Your task to perform on an android device: Open wifi settings Image 0: 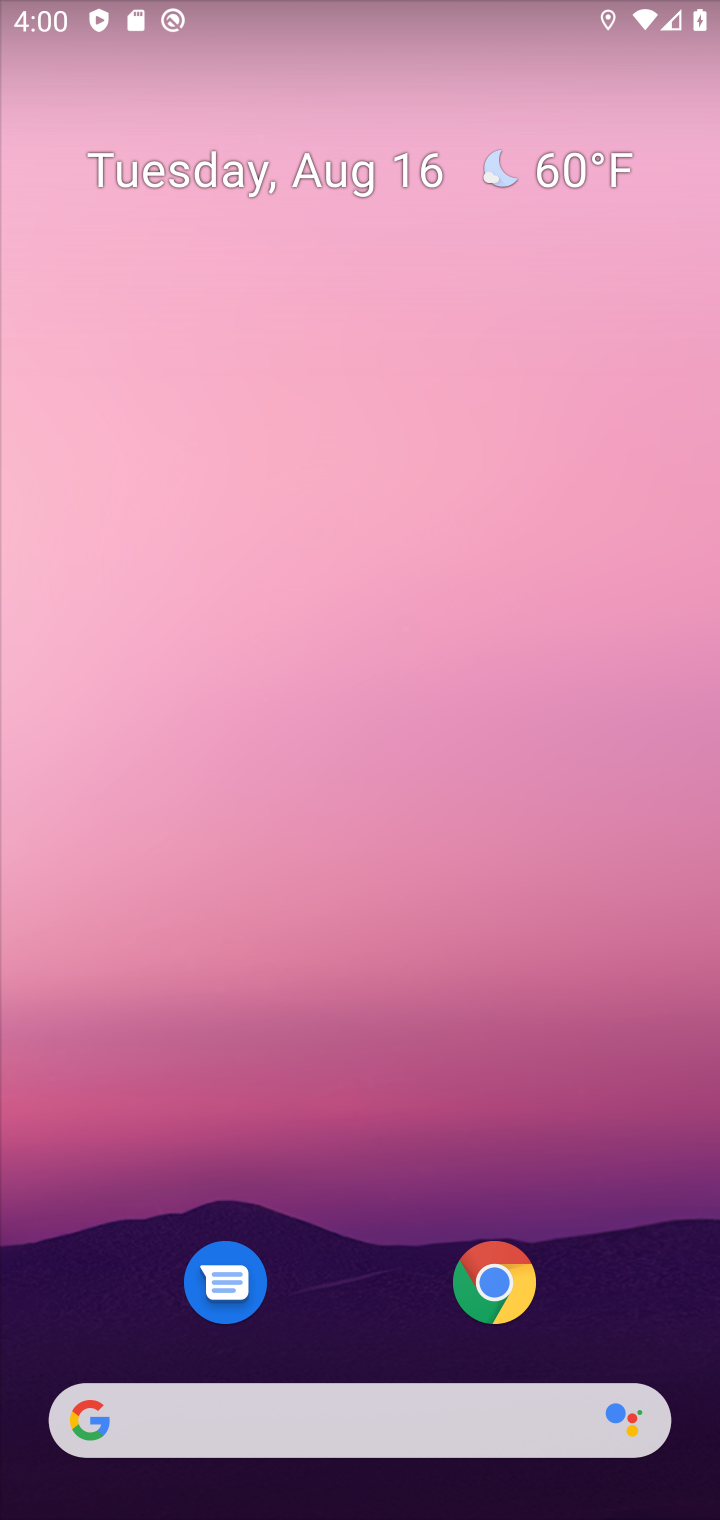
Step 0: drag from (253, 62) to (337, 956)
Your task to perform on an android device: Open wifi settings Image 1: 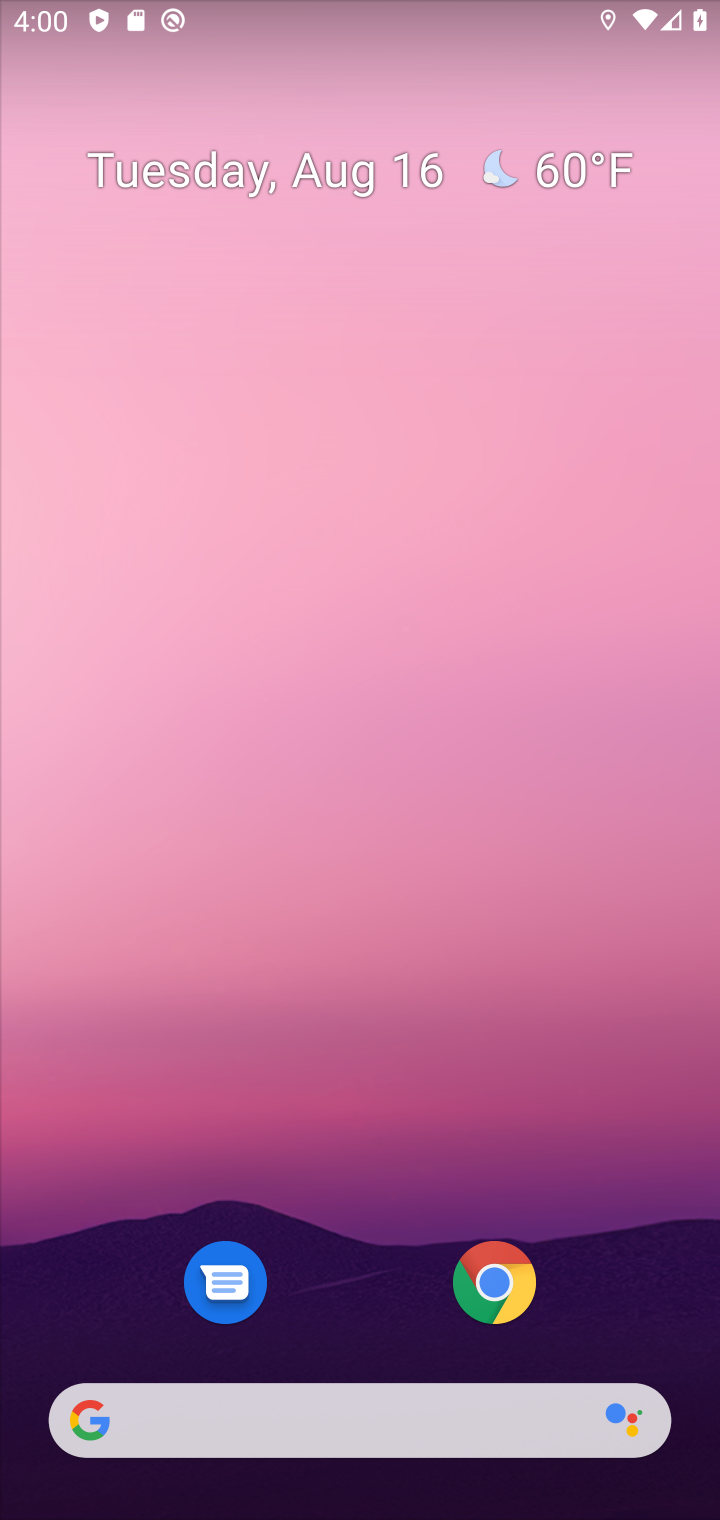
Step 1: drag from (100, 58) to (343, 871)
Your task to perform on an android device: Open wifi settings Image 2: 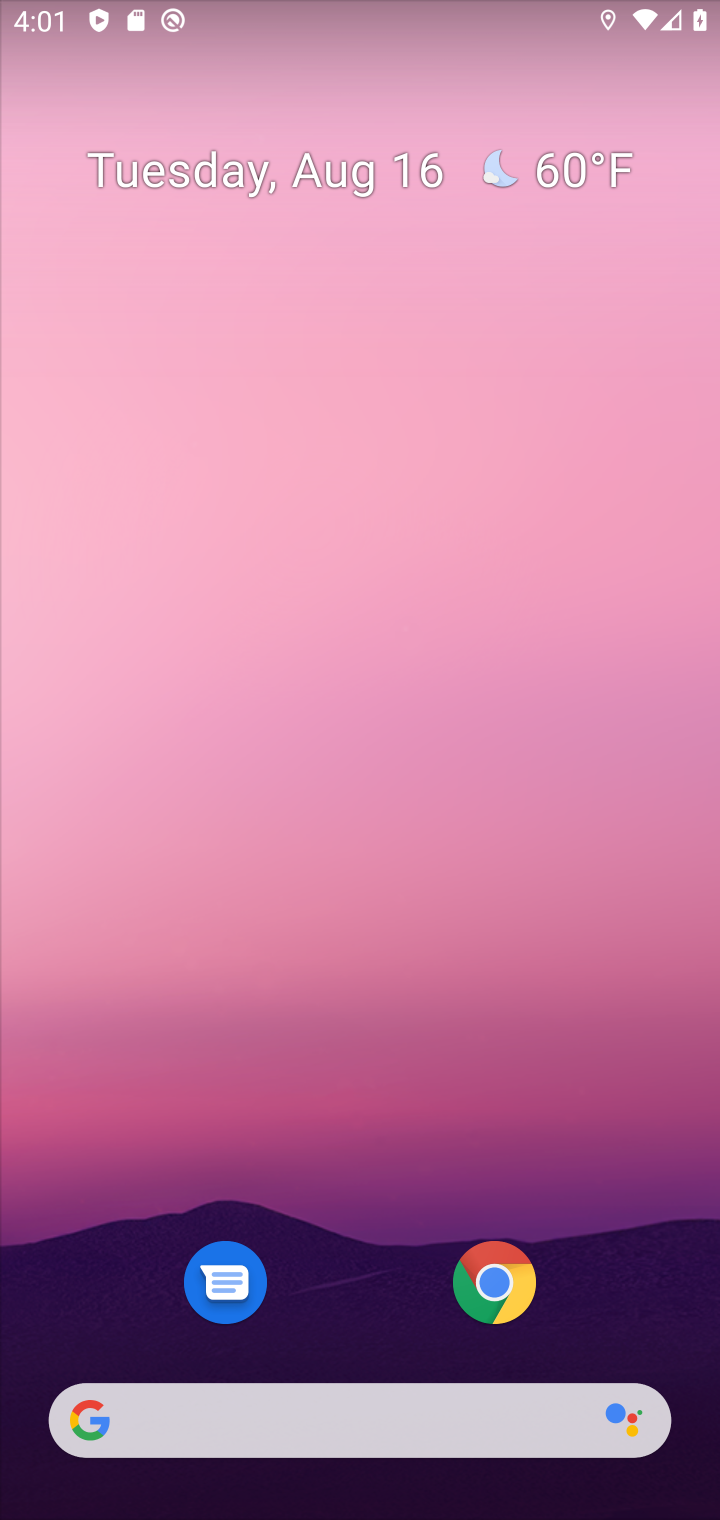
Step 2: drag from (177, 17) to (172, 1035)
Your task to perform on an android device: Open wifi settings Image 3: 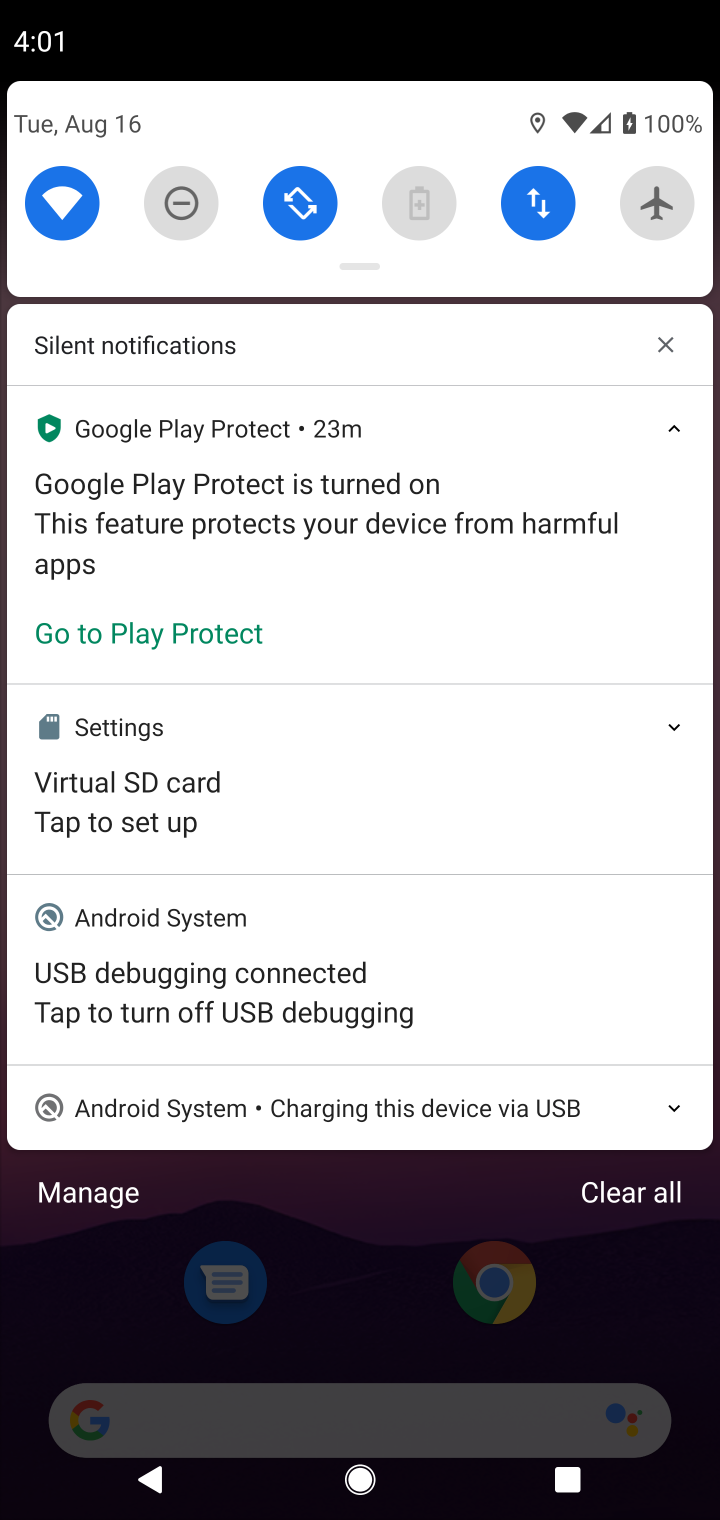
Step 3: click (71, 198)
Your task to perform on an android device: Open wifi settings Image 4: 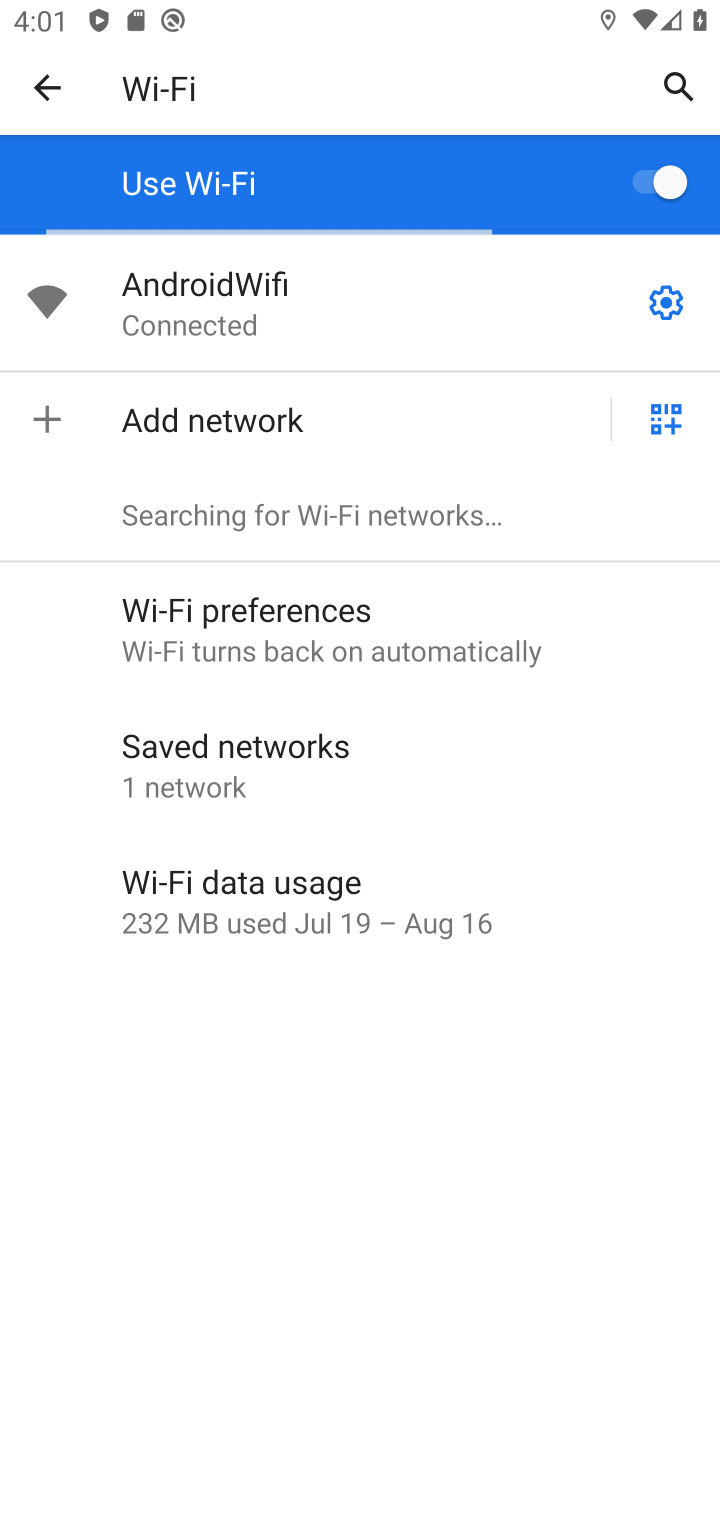
Step 4: task complete